Your task to perform on an android device: When is my next appointment? Image 0: 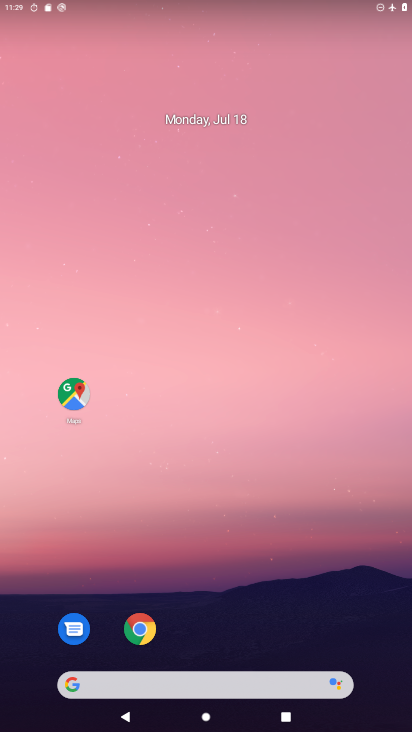
Step 0: click (225, 138)
Your task to perform on an android device: When is my next appointment? Image 1: 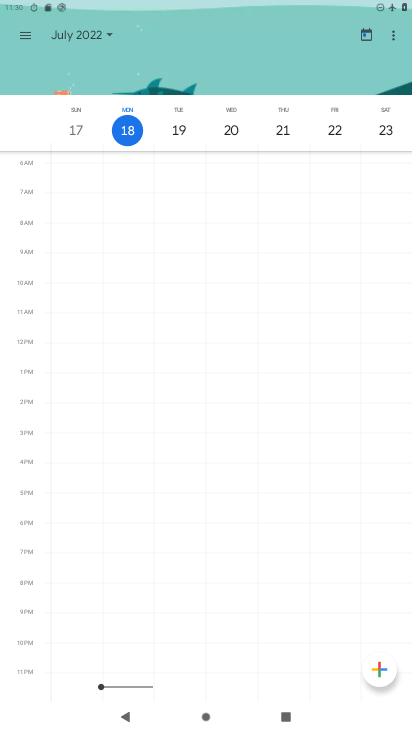
Step 1: task complete